Your task to perform on an android device: Go to Reddit.com Image 0: 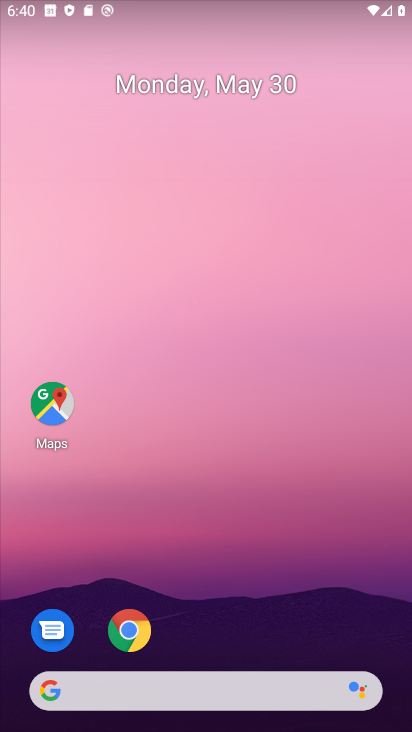
Step 0: drag from (359, 635) to (297, 81)
Your task to perform on an android device: Go to Reddit.com Image 1: 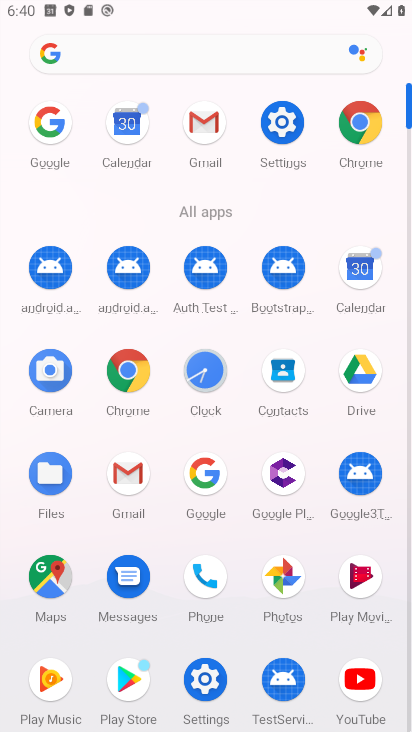
Step 1: click (187, 489)
Your task to perform on an android device: Go to Reddit.com Image 2: 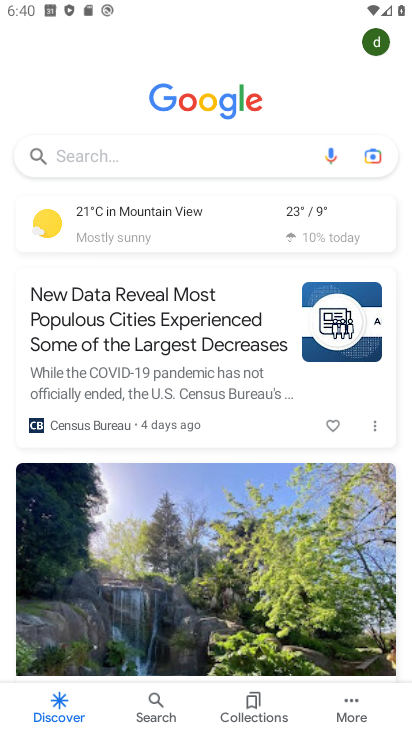
Step 2: click (153, 146)
Your task to perform on an android device: Go to Reddit.com Image 3: 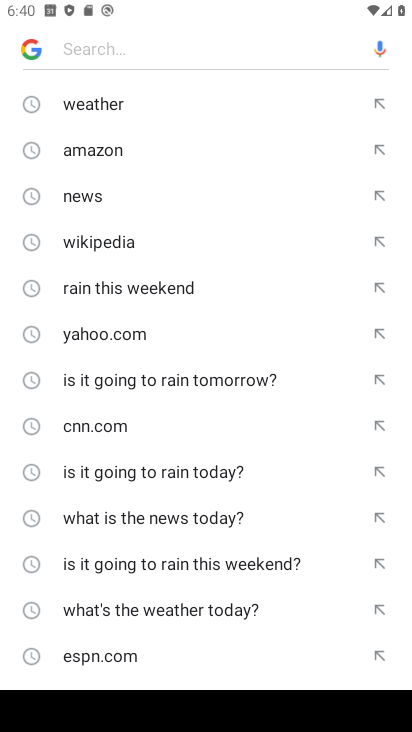
Step 3: drag from (161, 579) to (196, 90)
Your task to perform on an android device: Go to Reddit.com Image 4: 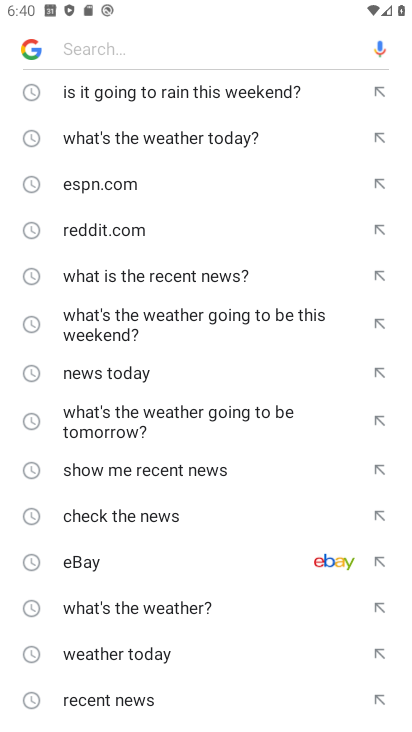
Step 4: drag from (111, 583) to (144, 102)
Your task to perform on an android device: Go to Reddit.com Image 5: 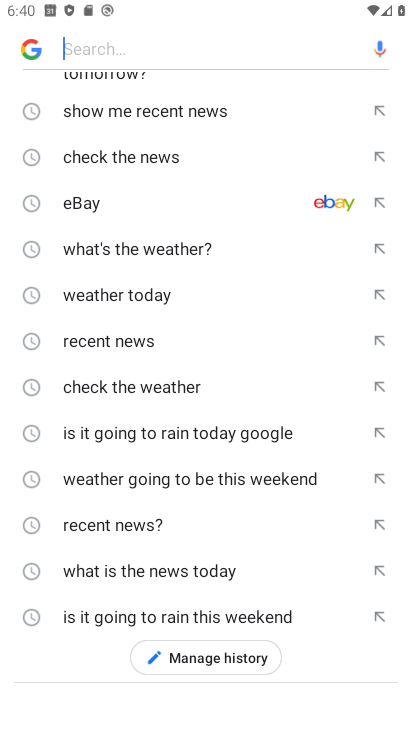
Step 5: drag from (144, 102) to (133, 589)
Your task to perform on an android device: Go to Reddit.com Image 6: 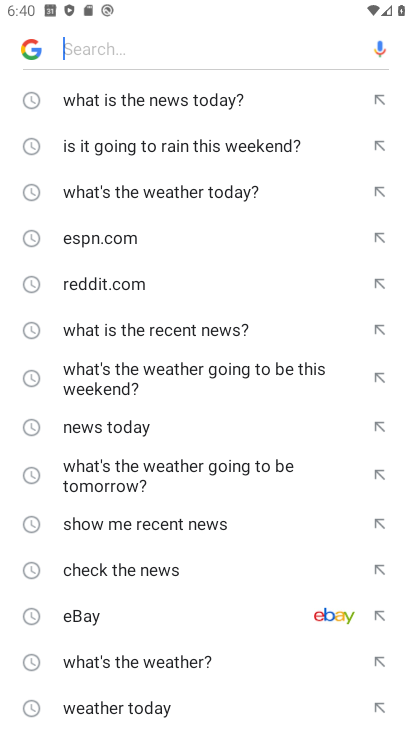
Step 6: click (96, 291)
Your task to perform on an android device: Go to Reddit.com Image 7: 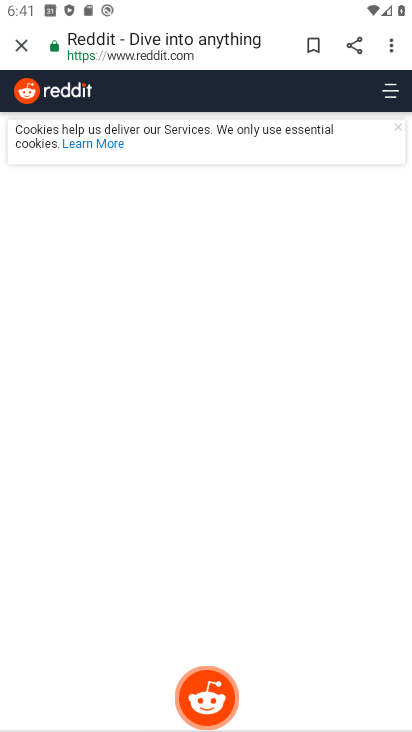
Step 7: task complete